Your task to perform on an android device: turn on location history Image 0: 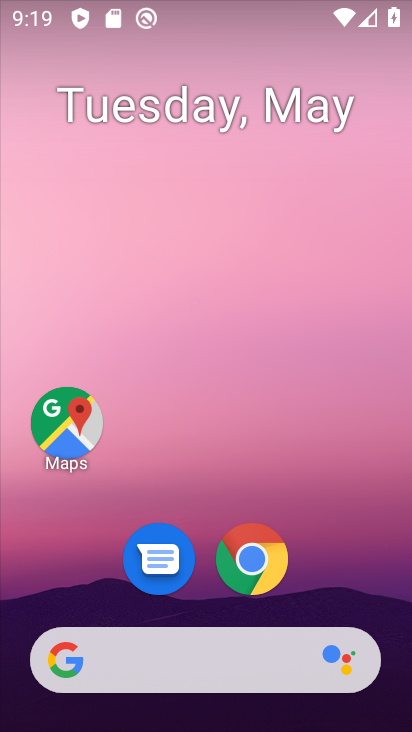
Step 0: drag from (336, 572) to (346, 197)
Your task to perform on an android device: turn on location history Image 1: 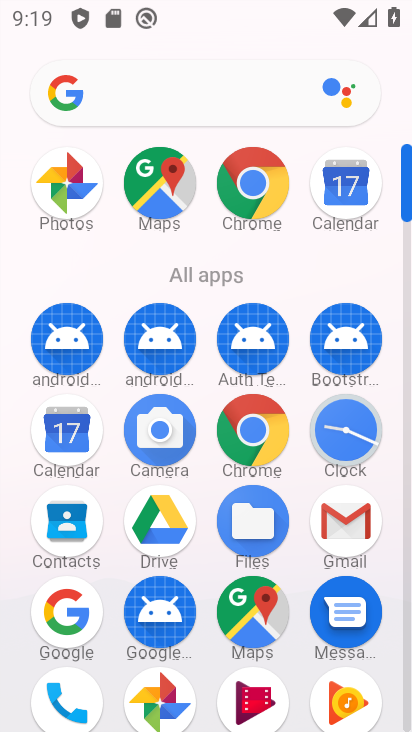
Step 1: drag from (227, 545) to (330, 169)
Your task to perform on an android device: turn on location history Image 2: 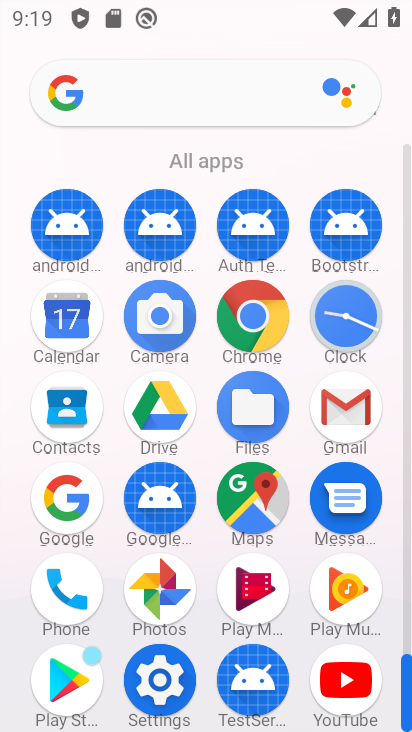
Step 2: click (162, 683)
Your task to perform on an android device: turn on location history Image 3: 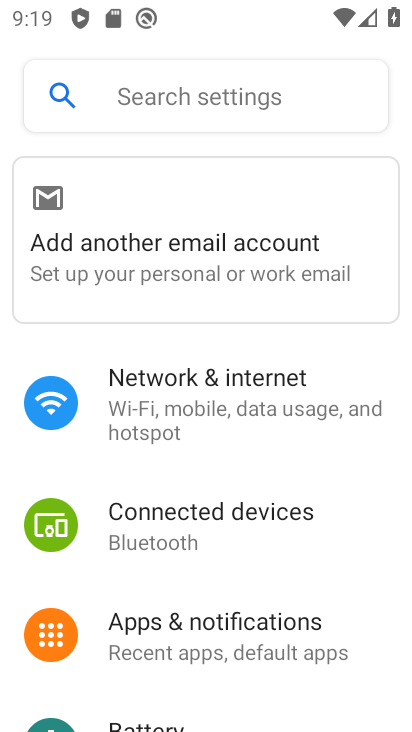
Step 3: drag from (227, 715) to (258, 139)
Your task to perform on an android device: turn on location history Image 4: 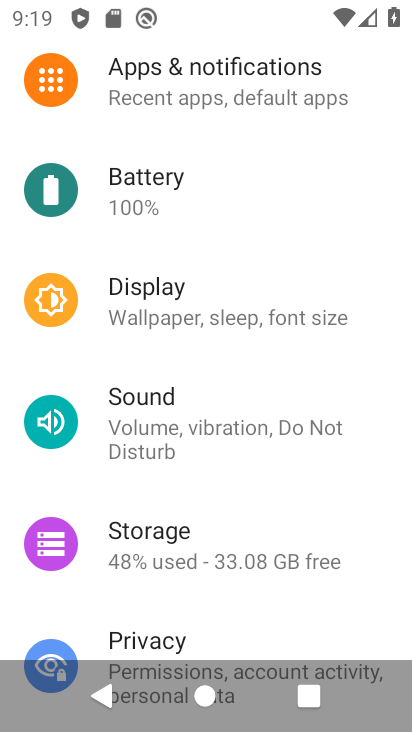
Step 4: drag from (276, 651) to (316, 207)
Your task to perform on an android device: turn on location history Image 5: 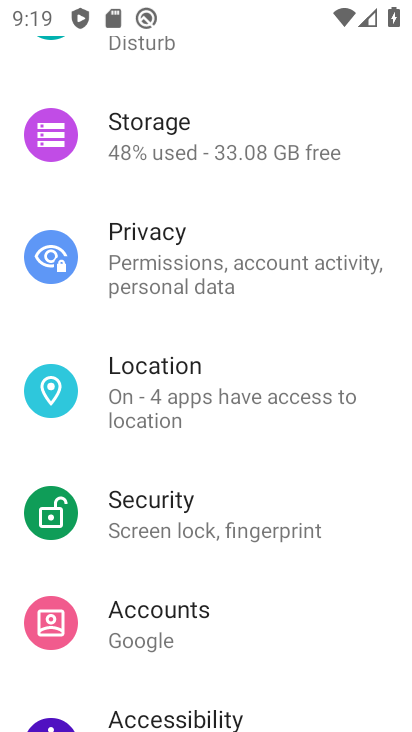
Step 5: click (189, 390)
Your task to perform on an android device: turn on location history Image 6: 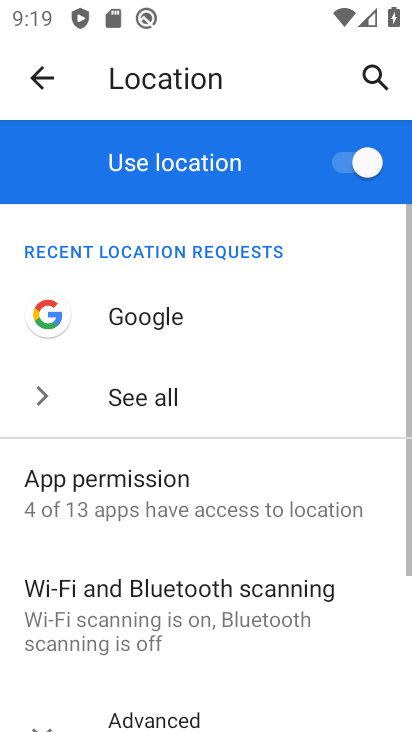
Step 6: drag from (220, 601) to (265, 246)
Your task to perform on an android device: turn on location history Image 7: 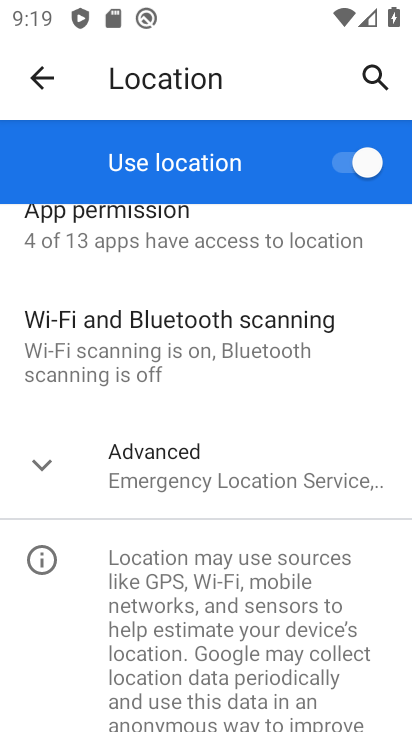
Step 7: click (181, 473)
Your task to perform on an android device: turn on location history Image 8: 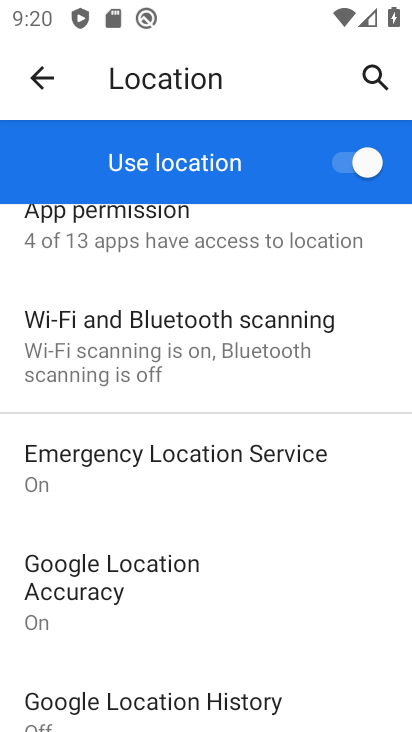
Step 8: click (180, 706)
Your task to perform on an android device: turn on location history Image 9: 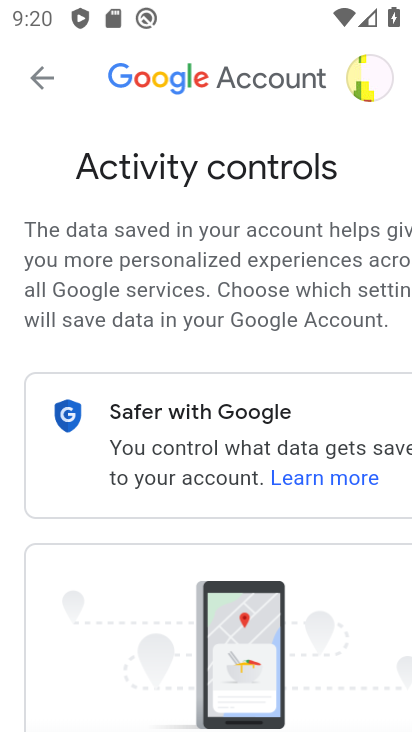
Step 9: task complete